Your task to perform on an android device: turn notification dots on Image 0: 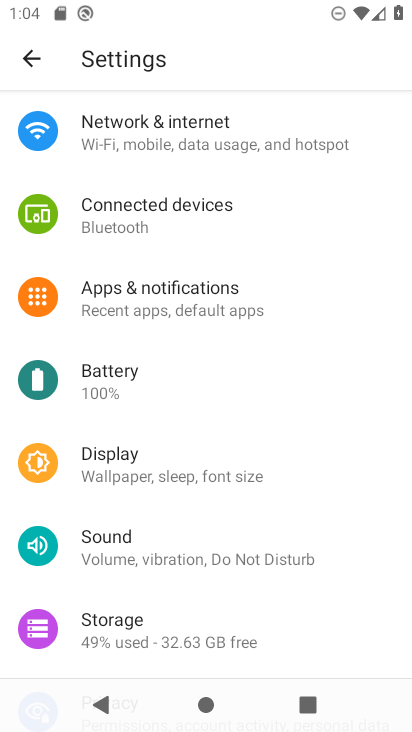
Step 0: click (224, 316)
Your task to perform on an android device: turn notification dots on Image 1: 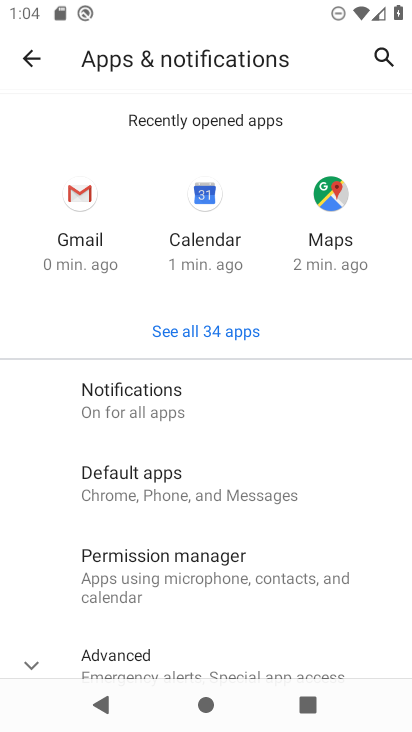
Step 1: click (151, 393)
Your task to perform on an android device: turn notification dots on Image 2: 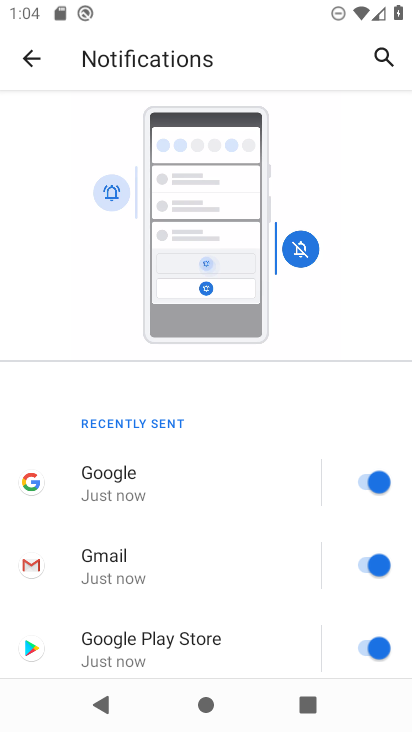
Step 2: drag from (197, 556) to (111, 104)
Your task to perform on an android device: turn notification dots on Image 3: 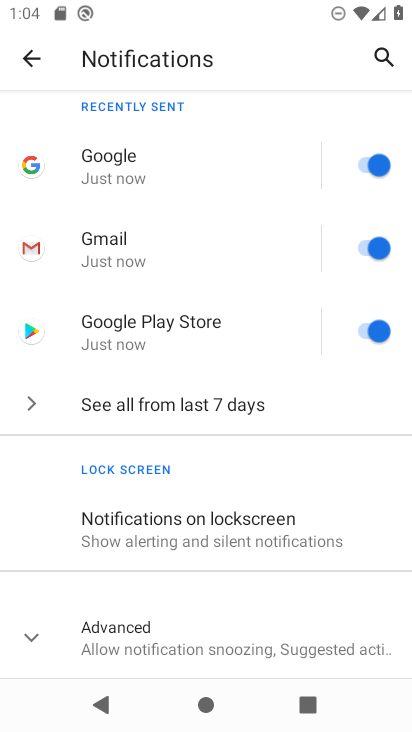
Step 3: click (166, 611)
Your task to perform on an android device: turn notification dots on Image 4: 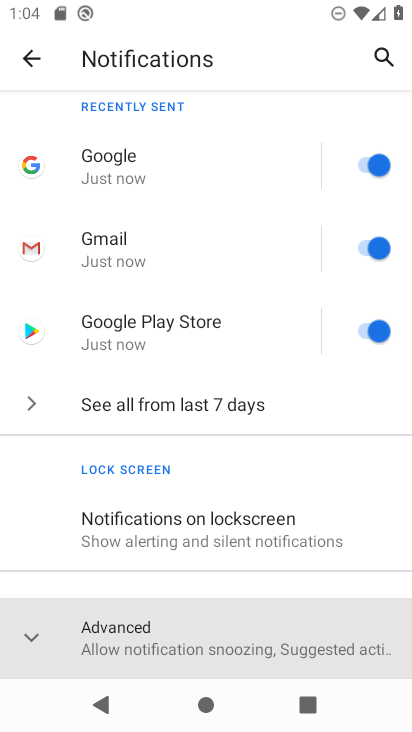
Step 4: drag from (166, 611) to (85, 0)
Your task to perform on an android device: turn notification dots on Image 5: 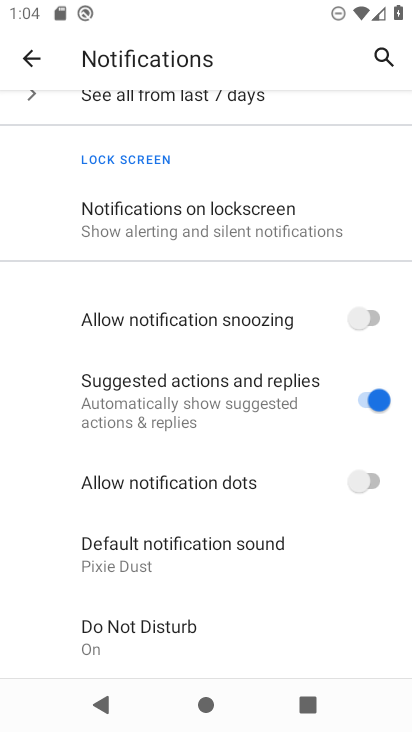
Step 5: click (253, 498)
Your task to perform on an android device: turn notification dots on Image 6: 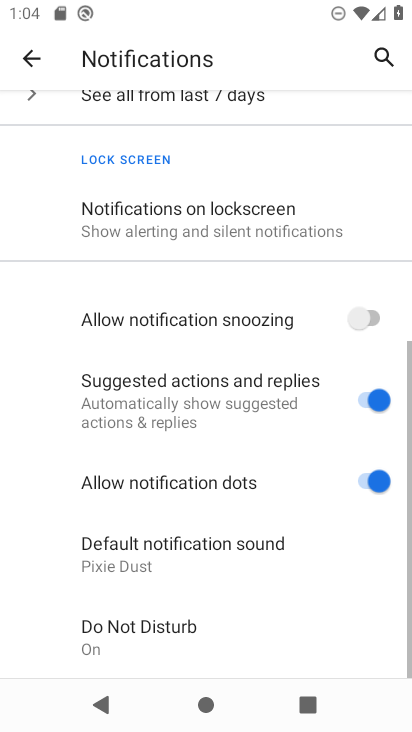
Step 6: task complete